Your task to perform on an android device: change the clock display to digital Image 0: 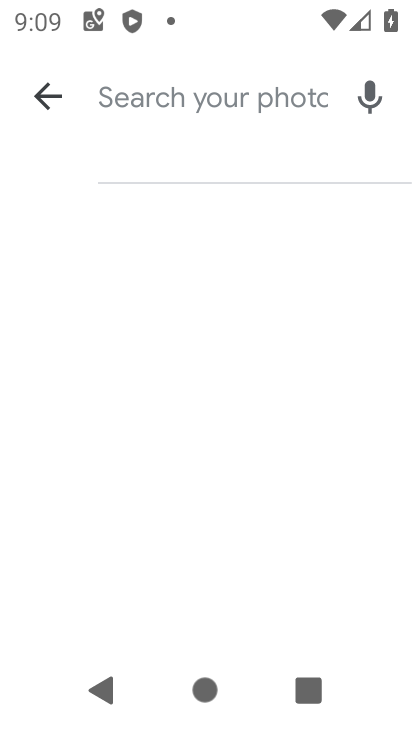
Step 0: press home button
Your task to perform on an android device: change the clock display to digital Image 1: 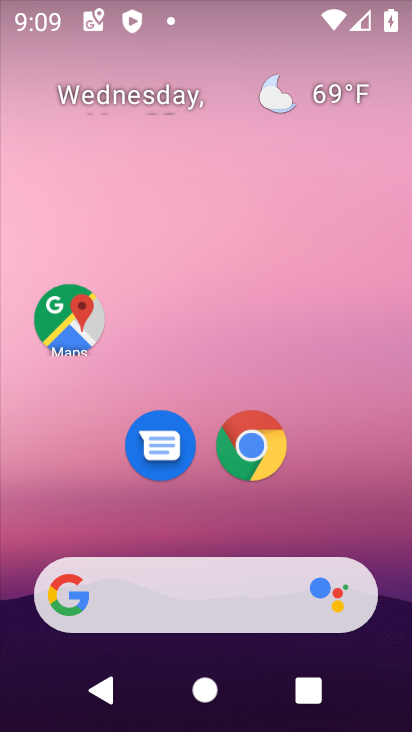
Step 1: drag from (204, 518) to (208, 119)
Your task to perform on an android device: change the clock display to digital Image 2: 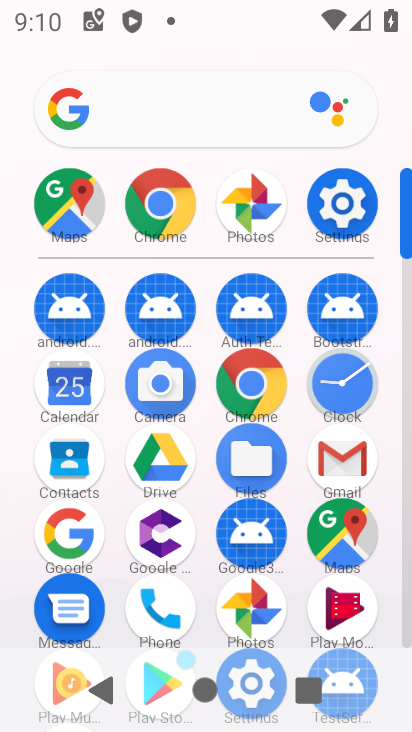
Step 2: click (355, 384)
Your task to perform on an android device: change the clock display to digital Image 3: 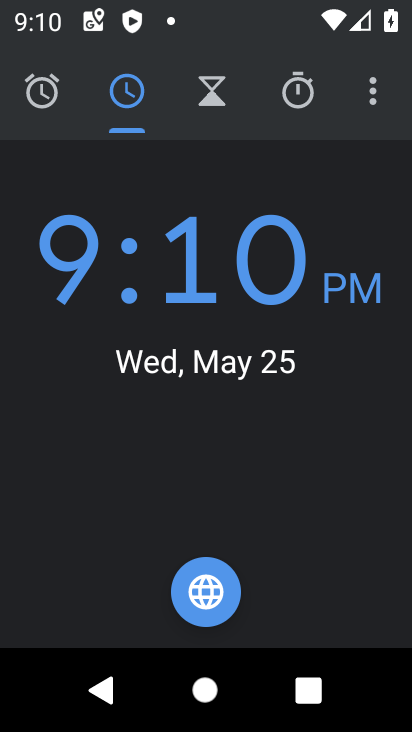
Step 3: click (370, 99)
Your task to perform on an android device: change the clock display to digital Image 4: 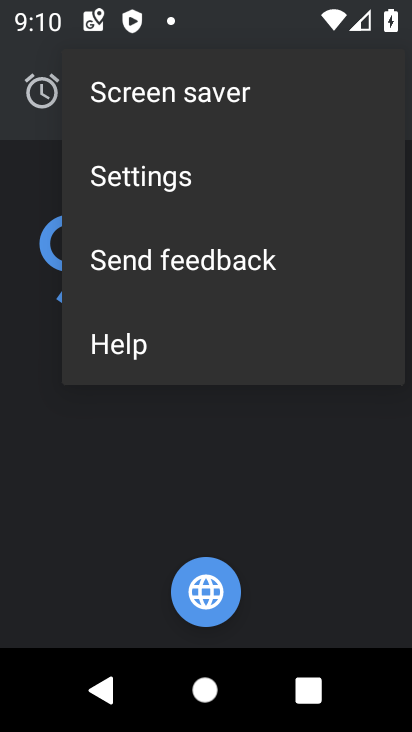
Step 4: click (130, 174)
Your task to perform on an android device: change the clock display to digital Image 5: 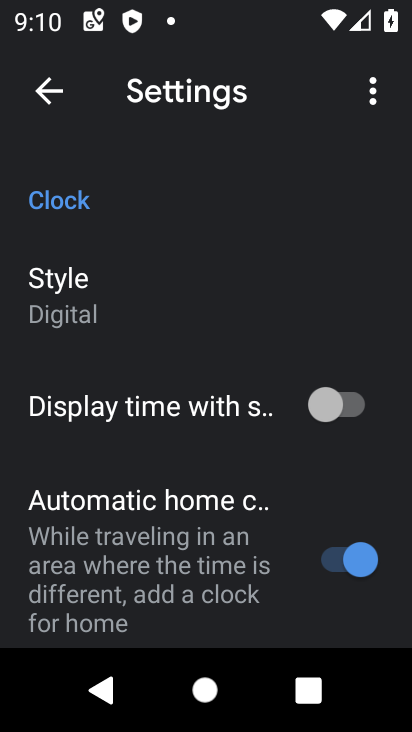
Step 5: click (83, 304)
Your task to perform on an android device: change the clock display to digital Image 6: 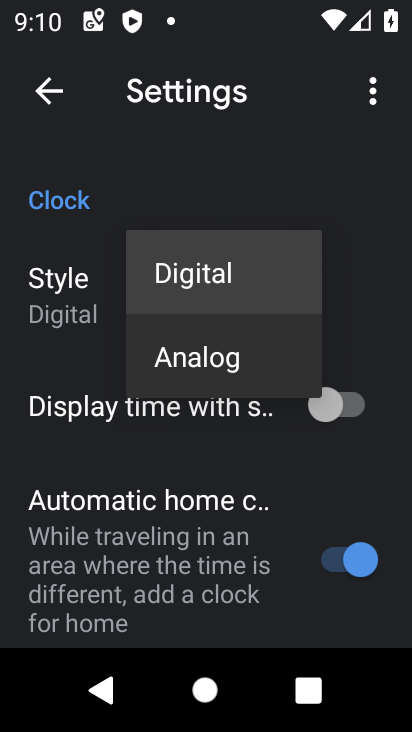
Step 6: click (187, 350)
Your task to perform on an android device: change the clock display to digital Image 7: 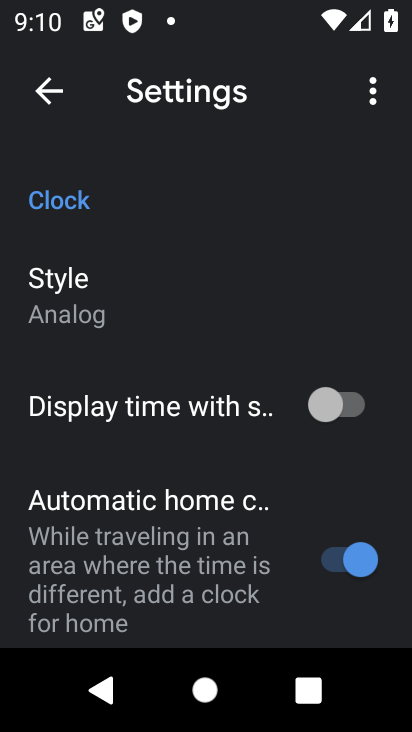
Step 7: task complete